Your task to perform on an android device: turn off improve location accuracy Image 0: 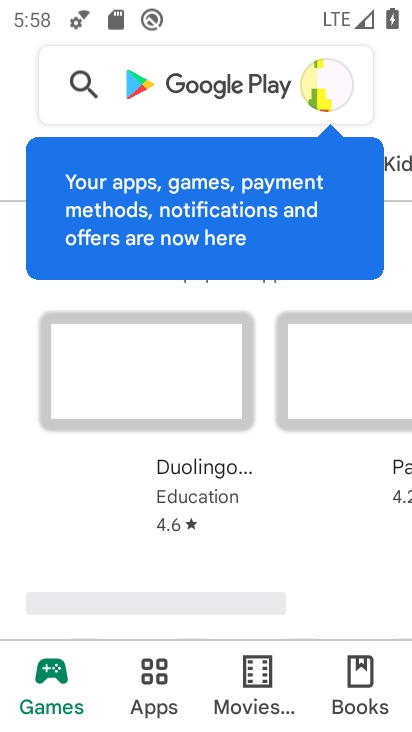
Step 0: press home button
Your task to perform on an android device: turn off improve location accuracy Image 1: 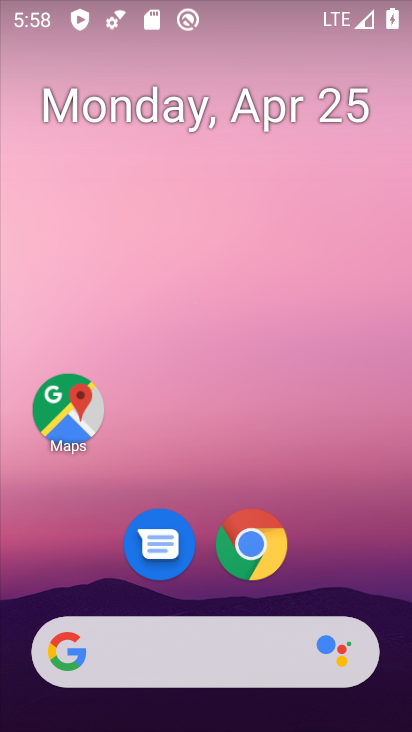
Step 1: drag from (366, 567) to (291, 103)
Your task to perform on an android device: turn off improve location accuracy Image 2: 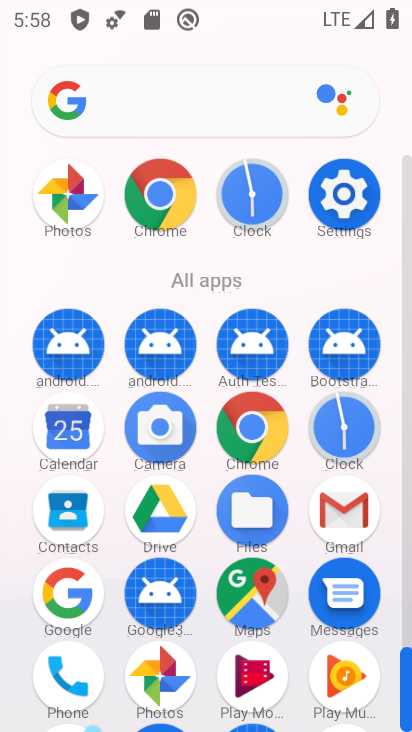
Step 2: click (336, 192)
Your task to perform on an android device: turn off improve location accuracy Image 3: 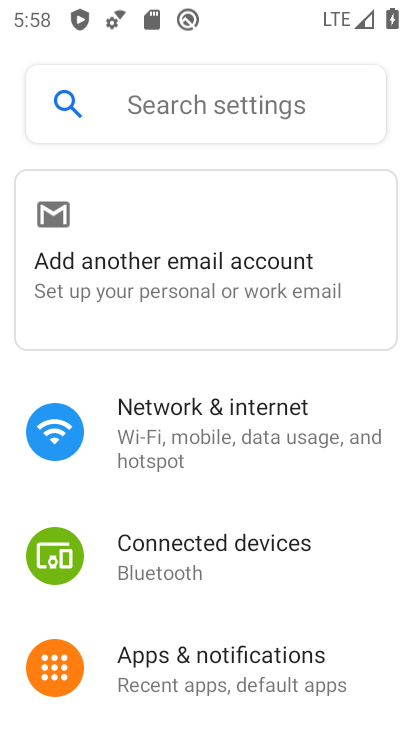
Step 3: click (277, 658)
Your task to perform on an android device: turn off improve location accuracy Image 4: 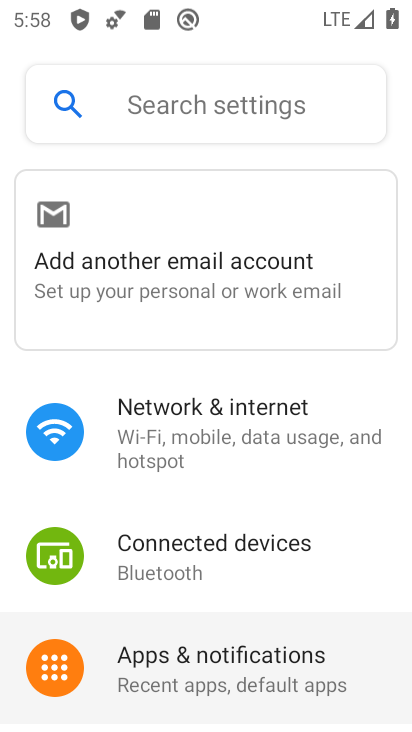
Step 4: drag from (299, 566) to (349, 208)
Your task to perform on an android device: turn off improve location accuracy Image 5: 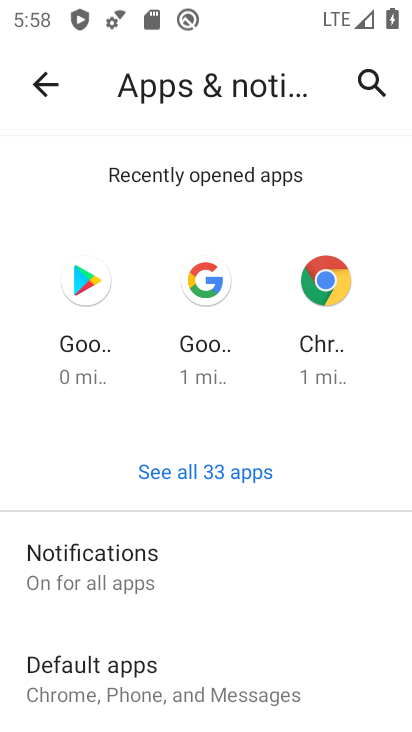
Step 5: click (50, 80)
Your task to perform on an android device: turn off improve location accuracy Image 6: 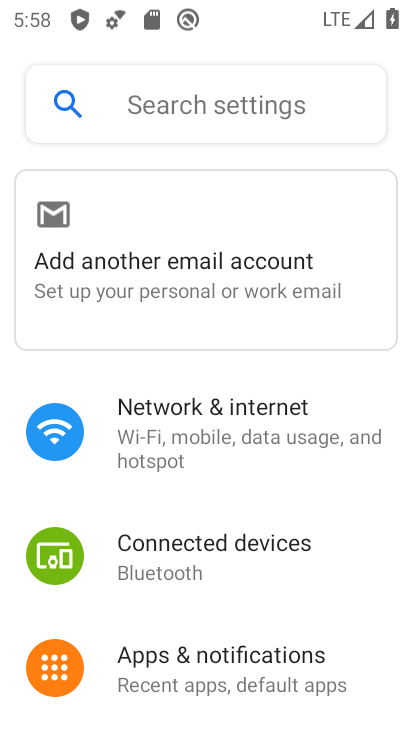
Step 6: drag from (290, 627) to (344, 54)
Your task to perform on an android device: turn off improve location accuracy Image 7: 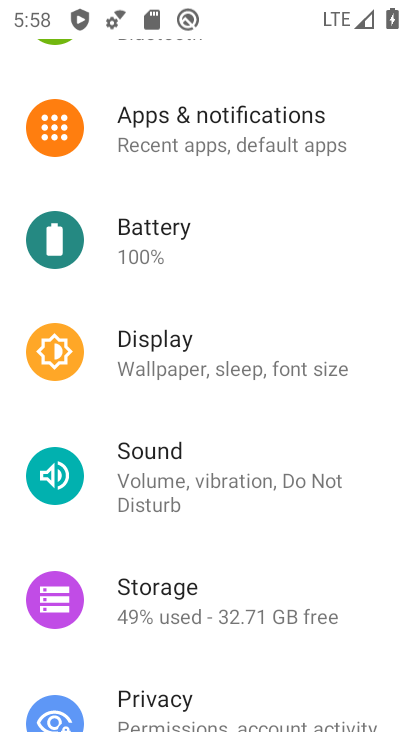
Step 7: drag from (295, 676) to (341, 229)
Your task to perform on an android device: turn off improve location accuracy Image 8: 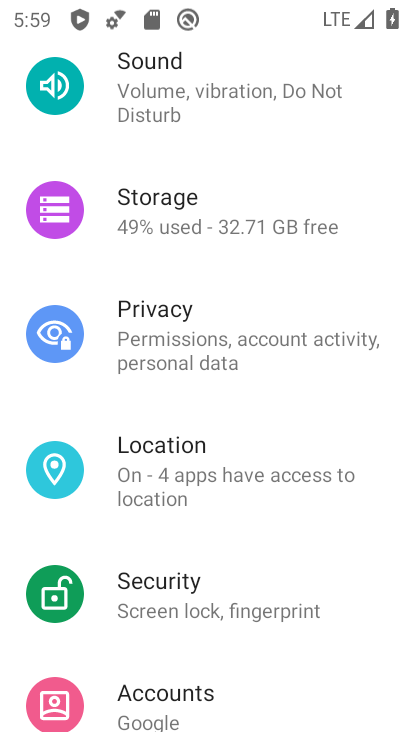
Step 8: drag from (311, 682) to (305, 540)
Your task to perform on an android device: turn off improve location accuracy Image 9: 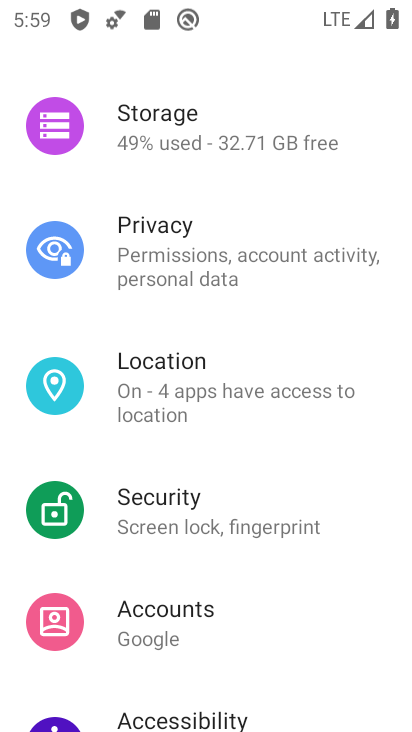
Step 9: drag from (327, 650) to (276, 184)
Your task to perform on an android device: turn off improve location accuracy Image 10: 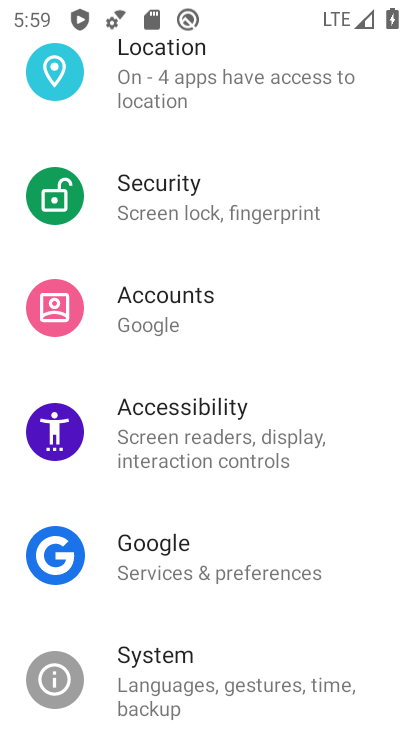
Step 10: drag from (328, 595) to (300, 372)
Your task to perform on an android device: turn off improve location accuracy Image 11: 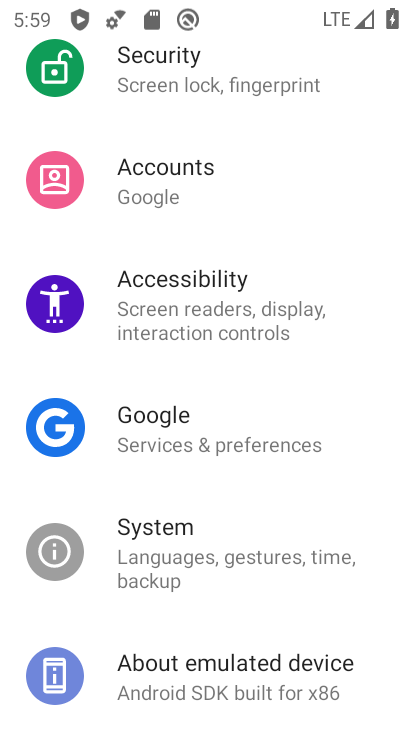
Step 11: drag from (307, 629) to (332, 328)
Your task to perform on an android device: turn off improve location accuracy Image 12: 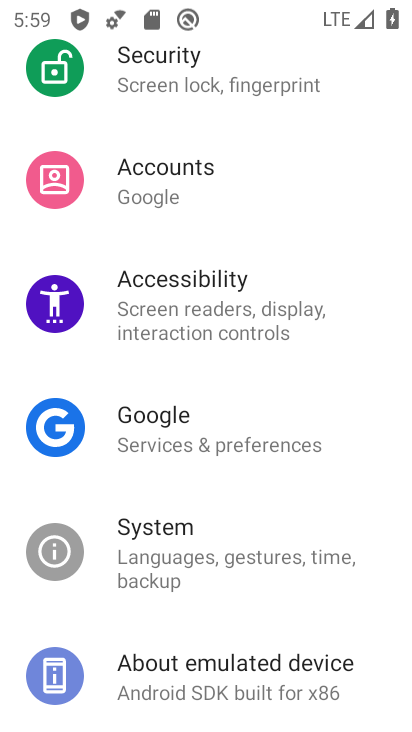
Step 12: click (207, 678)
Your task to perform on an android device: turn off improve location accuracy Image 13: 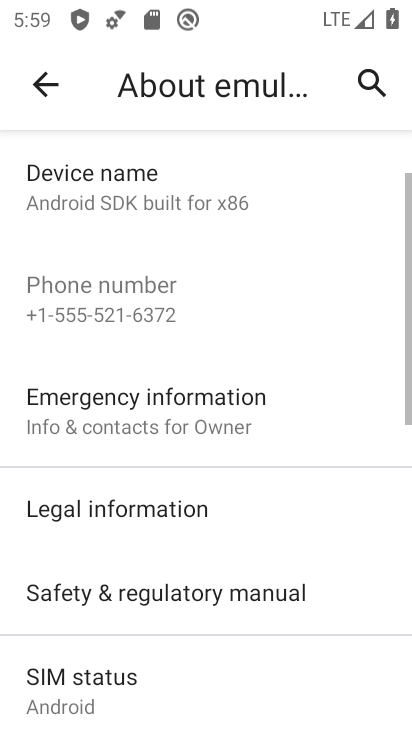
Step 13: drag from (281, 652) to (285, 305)
Your task to perform on an android device: turn off improve location accuracy Image 14: 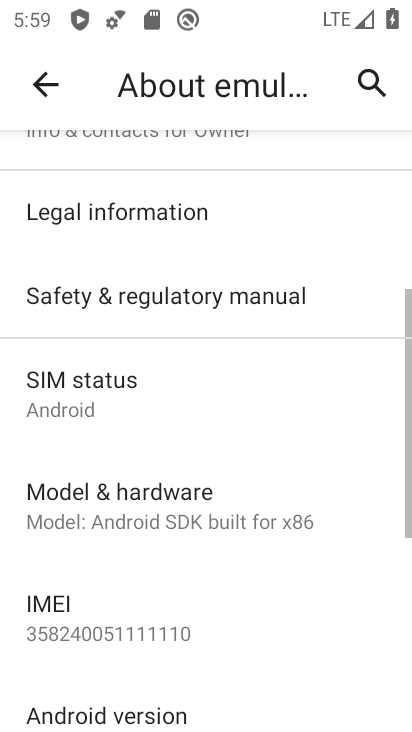
Step 14: drag from (327, 634) to (247, 262)
Your task to perform on an android device: turn off improve location accuracy Image 15: 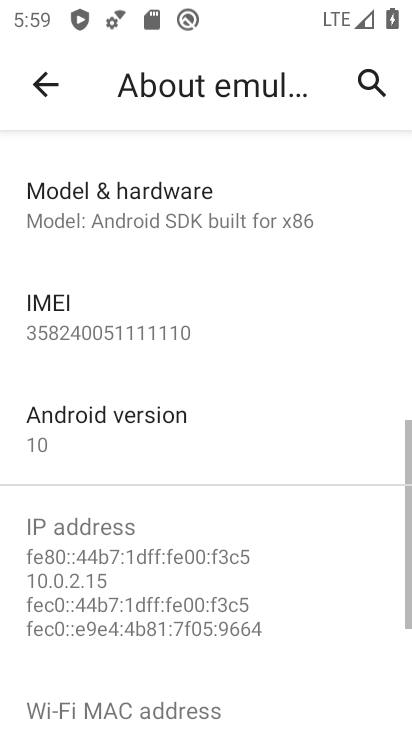
Step 15: click (204, 443)
Your task to perform on an android device: turn off improve location accuracy Image 16: 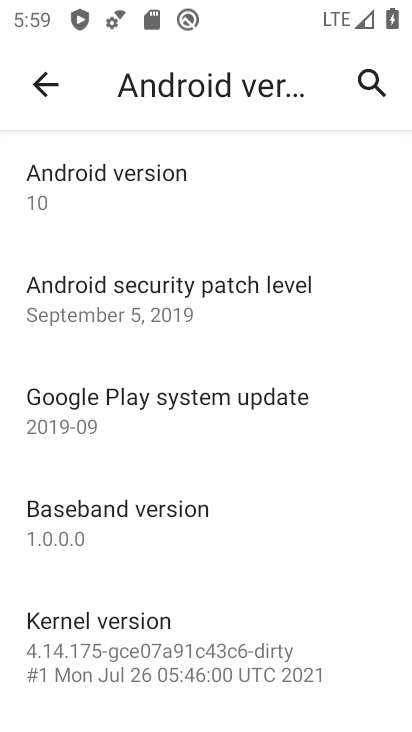
Step 16: task complete